Your task to perform on an android device: Go to ESPN.com Image 0: 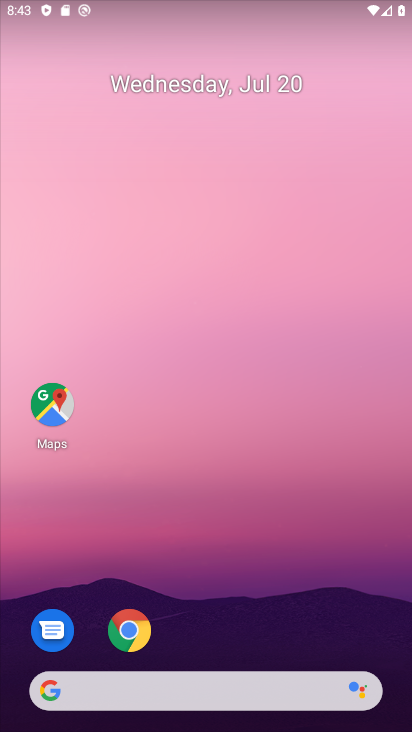
Step 0: click (135, 645)
Your task to perform on an android device: Go to ESPN.com Image 1: 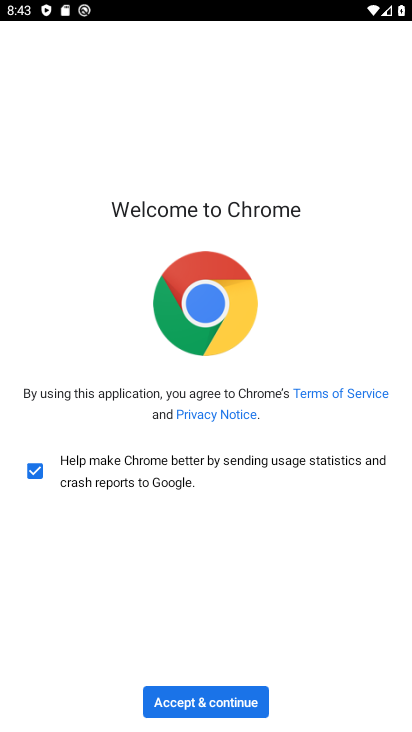
Step 1: click (231, 699)
Your task to perform on an android device: Go to ESPN.com Image 2: 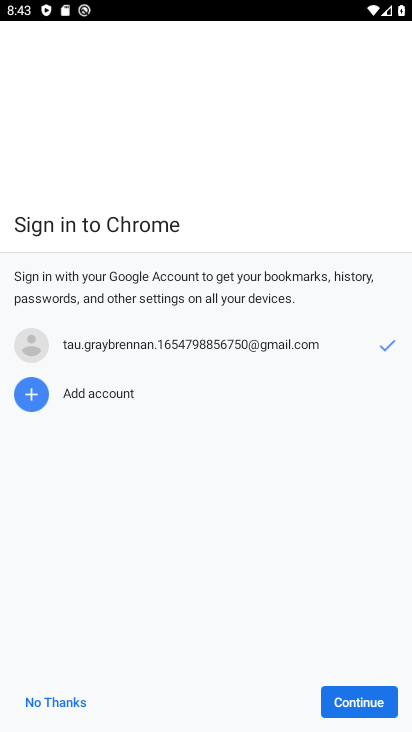
Step 2: click (355, 698)
Your task to perform on an android device: Go to ESPN.com Image 3: 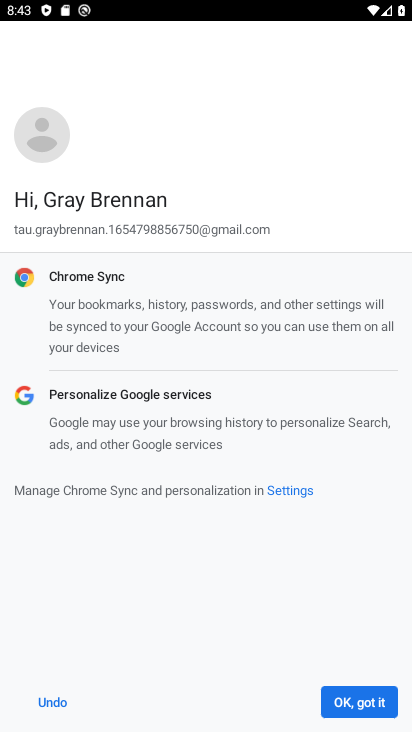
Step 3: click (344, 701)
Your task to perform on an android device: Go to ESPN.com Image 4: 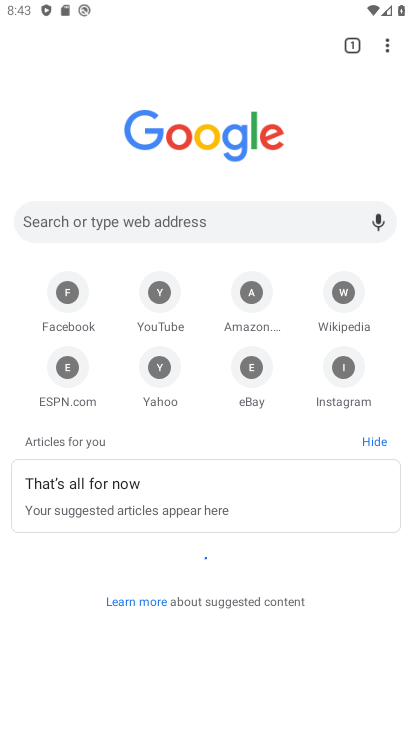
Step 4: click (65, 368)
Your task to perform on an android device: Go to ESPN.com Image 5: 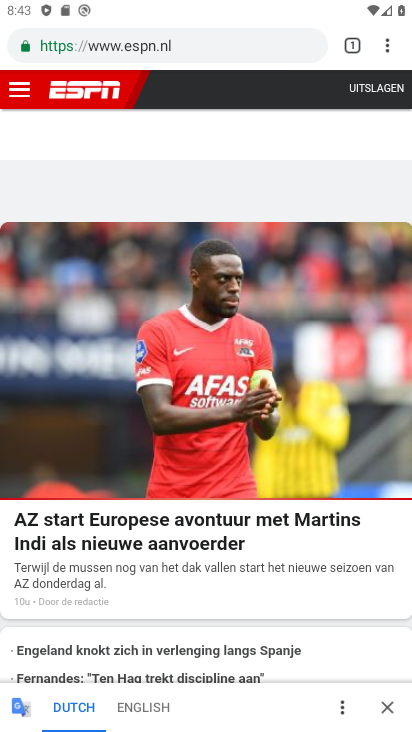
Step 5: task complete